Your task to perform on an android device: Do I have any events tomorrow? Image 0: 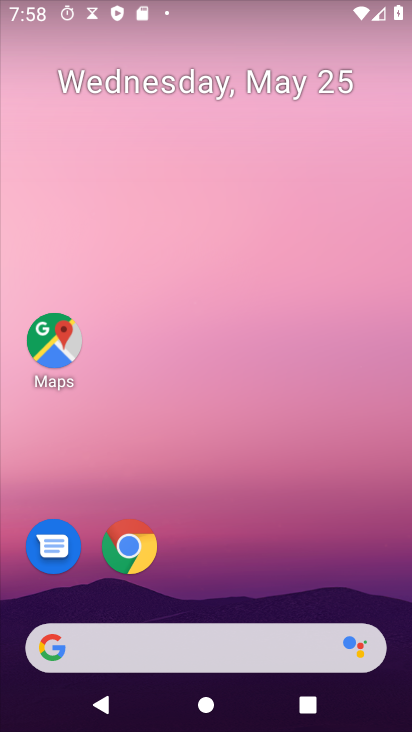
Step 0: drag from (239, 565) to (143, 224)
Your task to perform on an android device: Do I have any events tomorrow? Image 1: 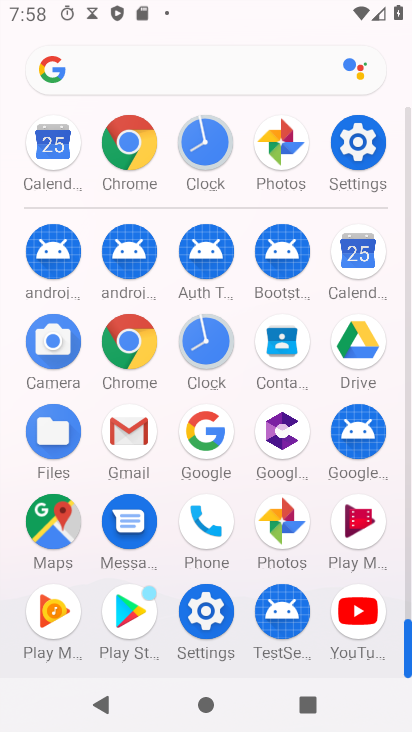
Step 1: click (363, 297)
Your task to perform on an android device: Do I have any events tomorrow? Image 2: 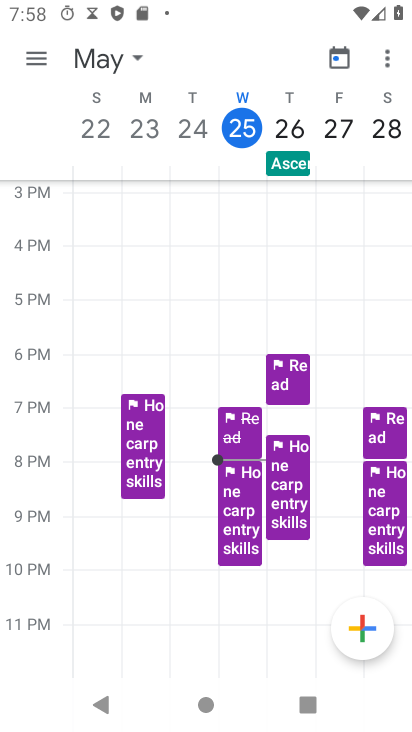
Step 2: click (31, 57)
Your task to perform on an android device: Do I have any events tomorrow? Image 3: 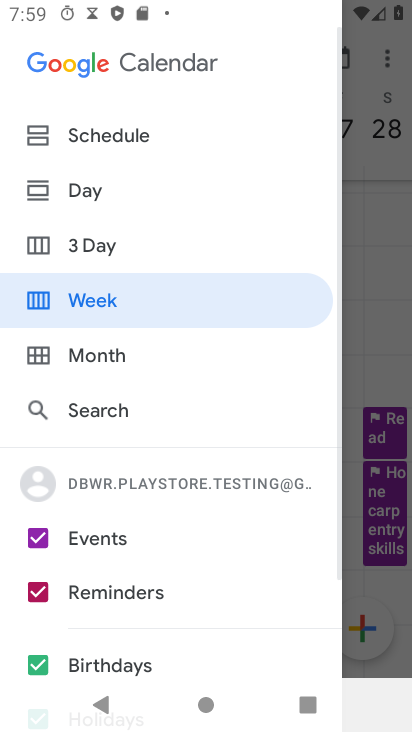
Step 3: click (91, 131)
Your task to perform on an android device: Do I have any events tomorrow? Image 4: 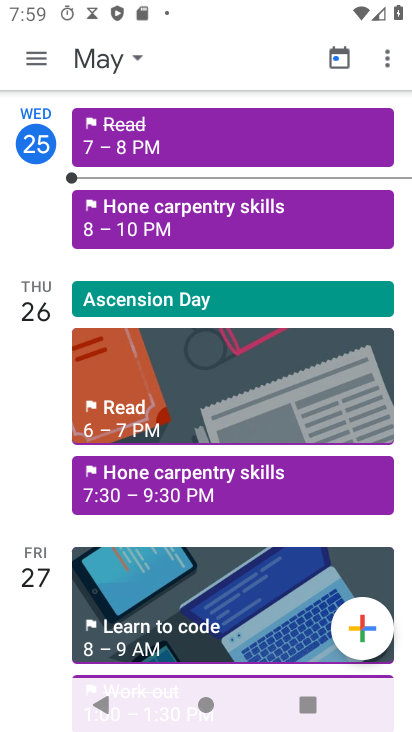
Step 4: task complete